Your task to perform on an android device: Go to calendar. Show me events next week Image 0: 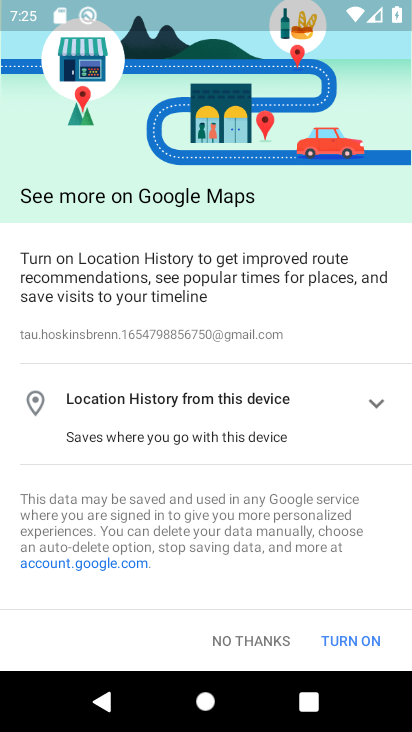
Step 0: press home button
Your task to perform on an android device: Go to calendar. Show me events next week Image 1: 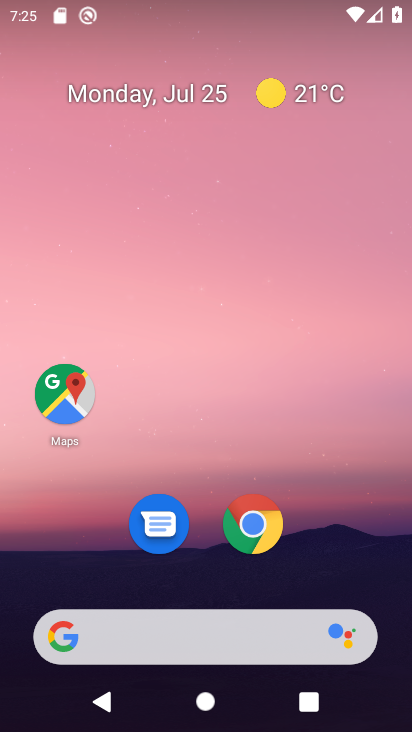
Step 1: drag from (183, 597) to (265, 285)
Your task to perform on an android device: Go to calendar. Show me events next week Image 2: 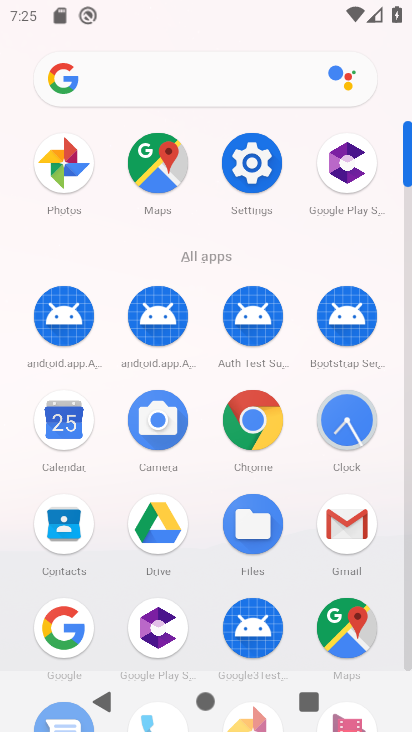
Step 2: click (70, 434)
Your task to perform on an android device: Go to calendar. Show me events next week Image 3: 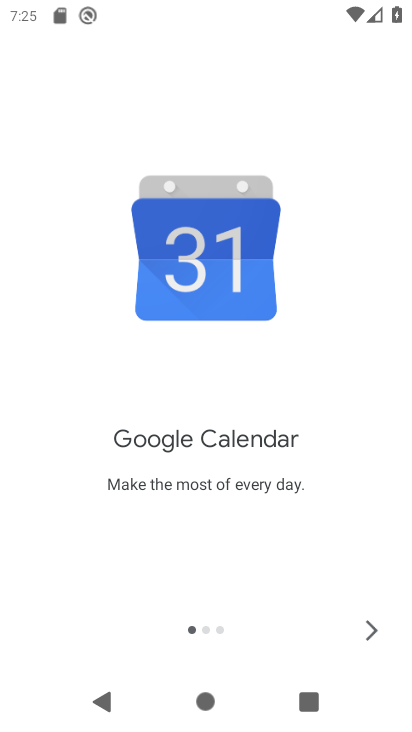
Step 3: click (377, 632)
Your task to perform on an android device: Go to calendar. Show me events next week Image 4: 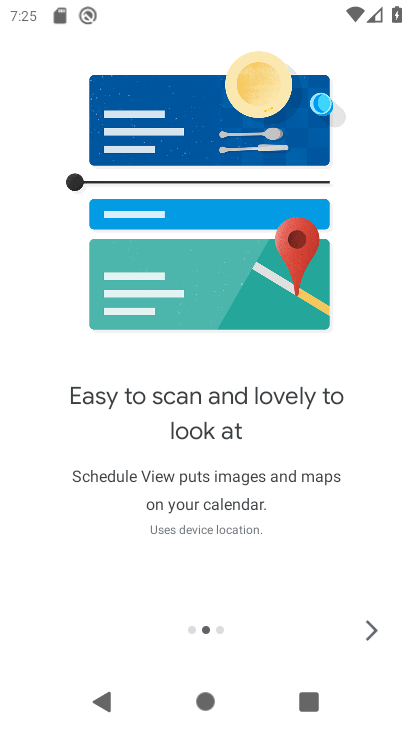
Step 4: click (377, 632)
Your task to perform on an android device: Go to calendar. Show me events next week Image 5: 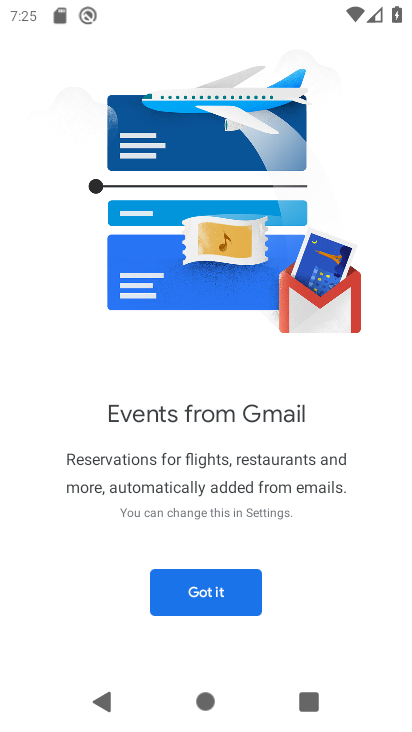
Step 5: click (211, 584)
Your task to perform on an android device: Go to calendar. Show me events next week Image 6: 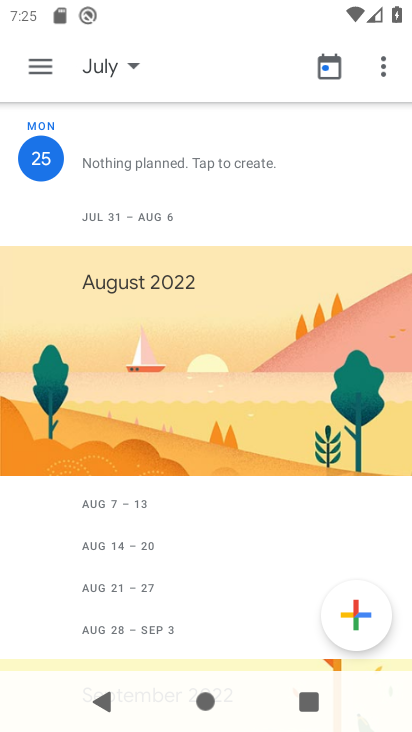
Step 6: click (99, 68)
Your task to perform on an android device: Go to calendar. Show me events next week Image 7: 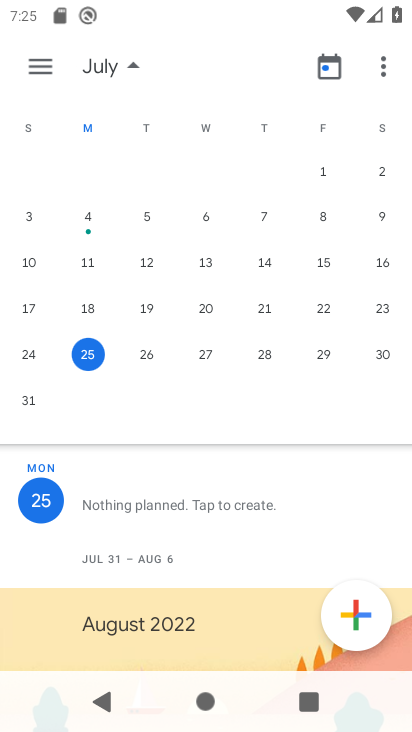
Step 7: click (18, 403)
Your task to perform on an android device: Go to calendar. Show me events next week Image 8: 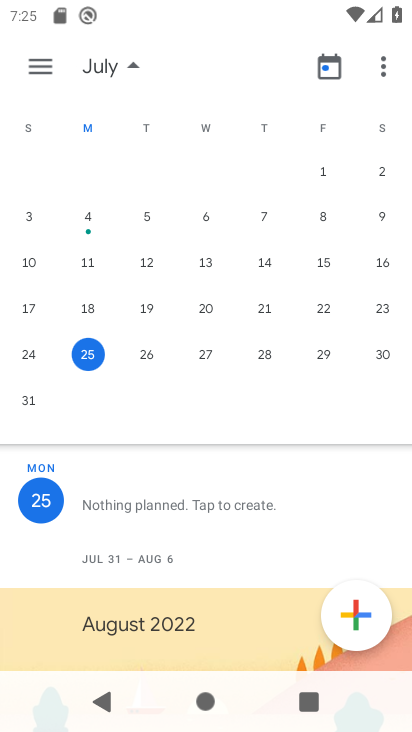
Step 8: click (42, 48)
Your task to perform on an android device: Go to calendar. Show me events next week Image 9: 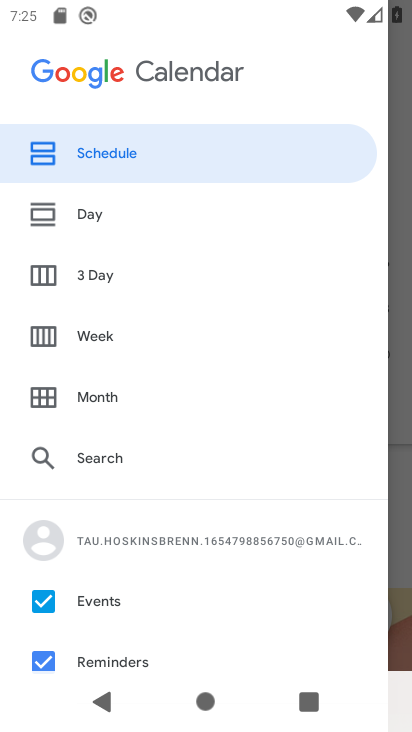
Step 9: click (97, 334)
Your task to perform on an android device: Go to calendar. Show me events next week Image 10: 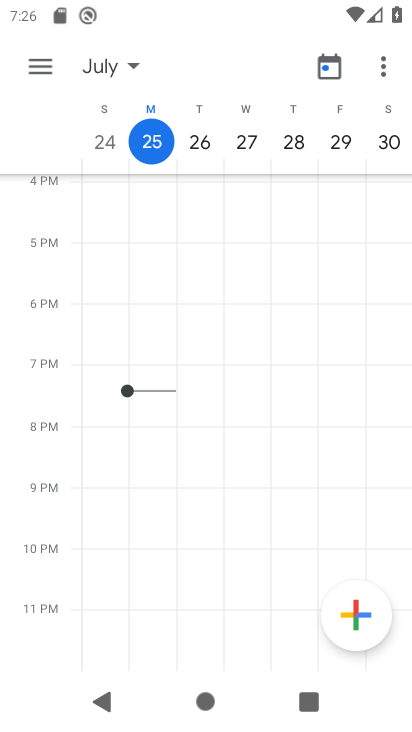
Step 10: click (98, 59)
Your task to perform on an android device: Go to calendar. Show me events next week Image 11: 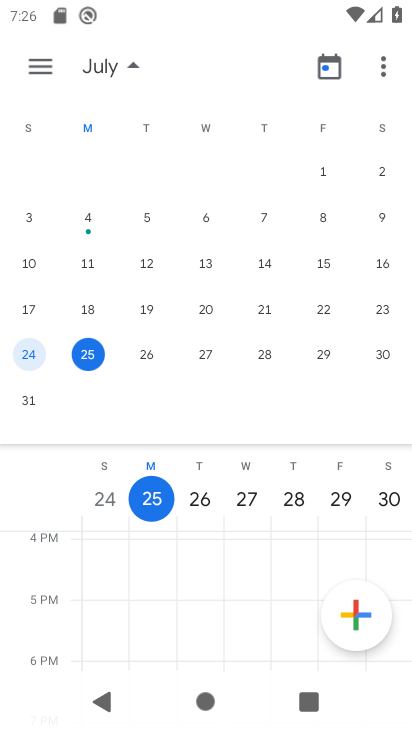
Step 11: click (32, 401)
Your task to perform on an android device: Go to calendar. Show me events next week Image 12: 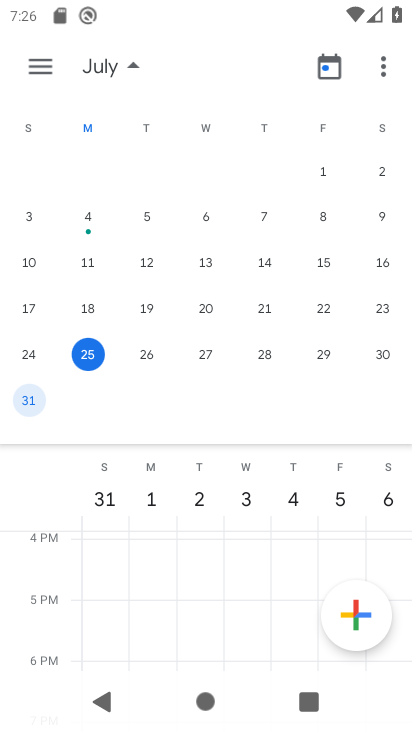
Step 12: click (36, 61)
Your task to perform on an android device: Go to calendar. Show me events next week Image 13: 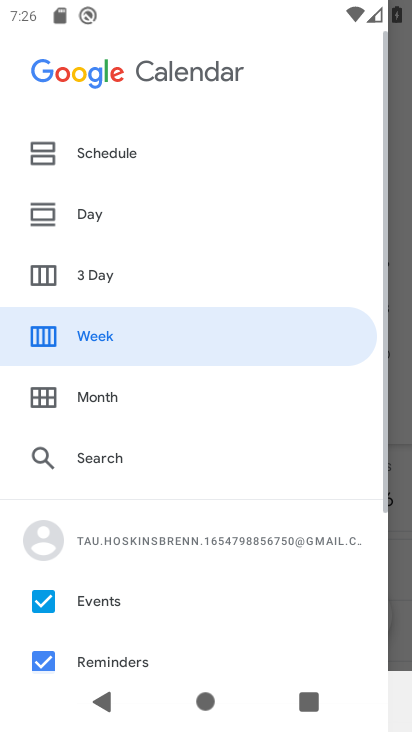
Step 13: click (105, 330)
Your task to perform on an android device: Go to calendar. Show me events next week Image 14: 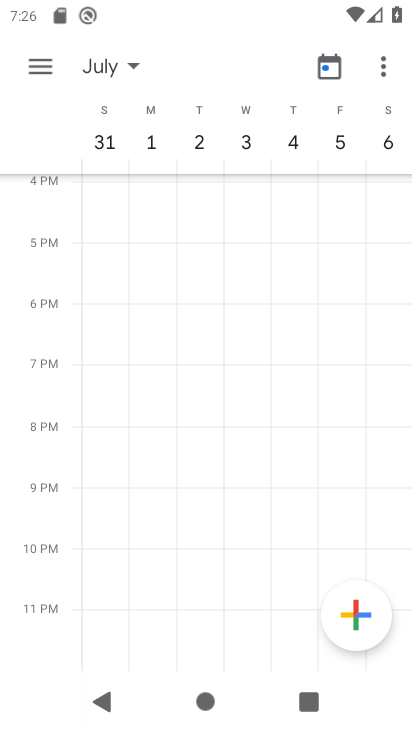
Step 14: click (32, 57)
Your task to perform on an android device: Go to calendar. Show me events next week Image 15: 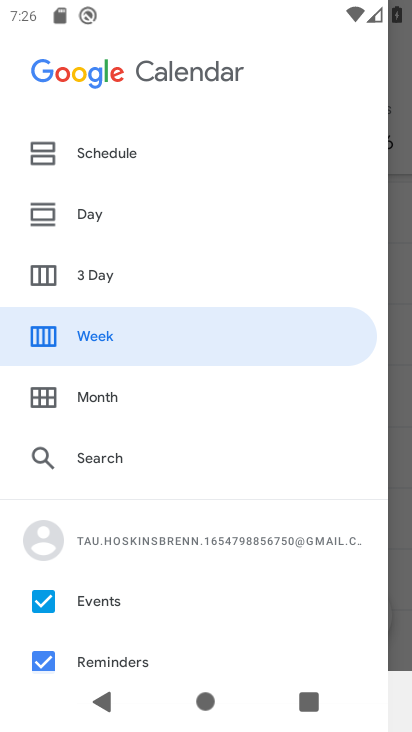
Step 15: click (94, 146)
Your task to perform on an android device: Go to calendar. Show me events next week Image 16: 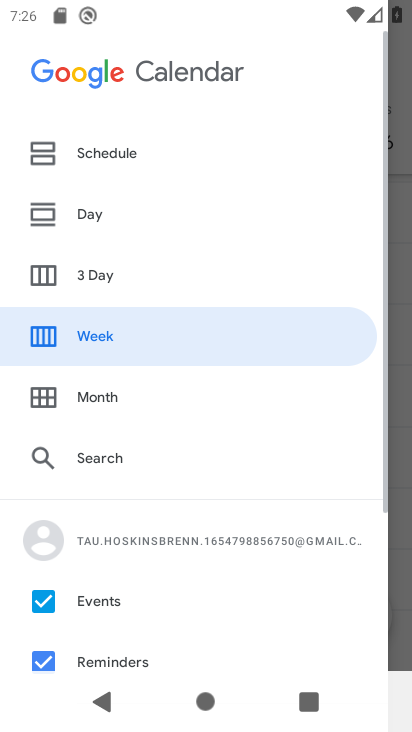
Step 16: click (98, 154)
Your task to perform on an android device: Go to calendar. Show me events next week Image 17: 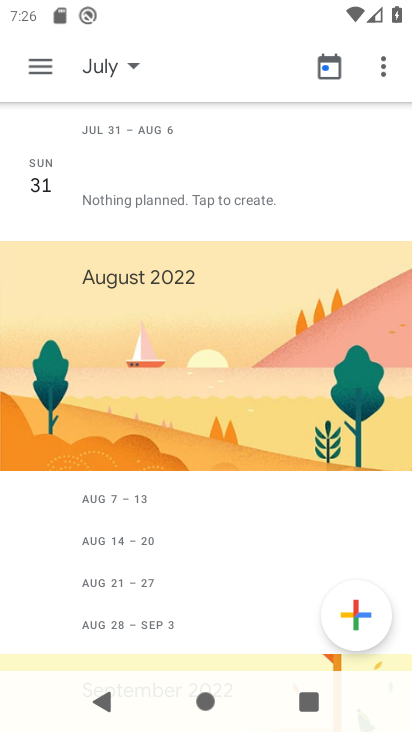
Step 17: task complete